Your task to perform on an android device: turn on location history Image 0: 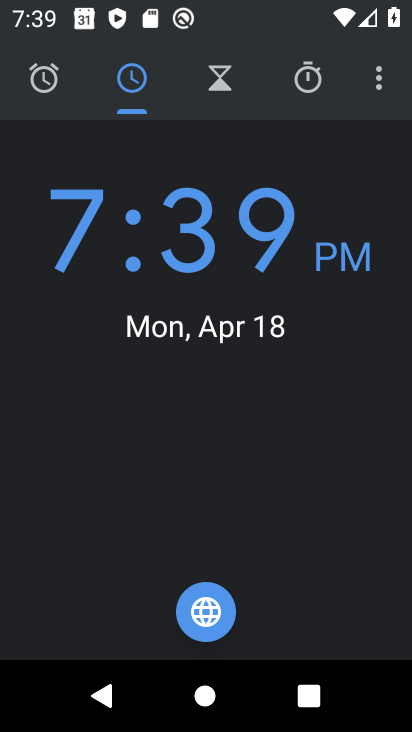
Step 0: press home button
Your task to perform on an android device: turn on location history Image 1: 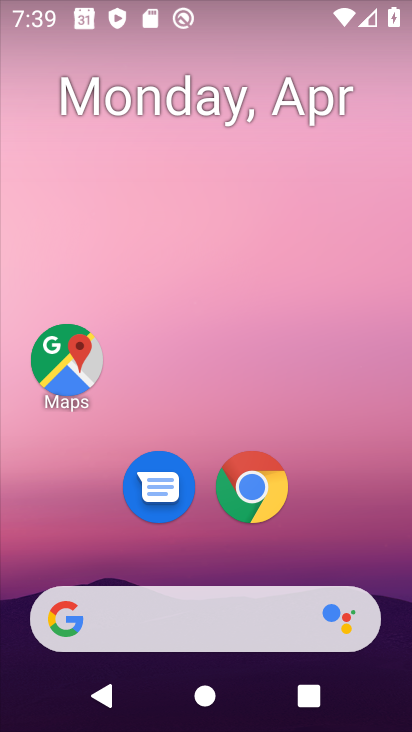
Step 1: drag from (321, 539) to (325, 60)
Your task to perform on an android device: turn on location history Image 2: 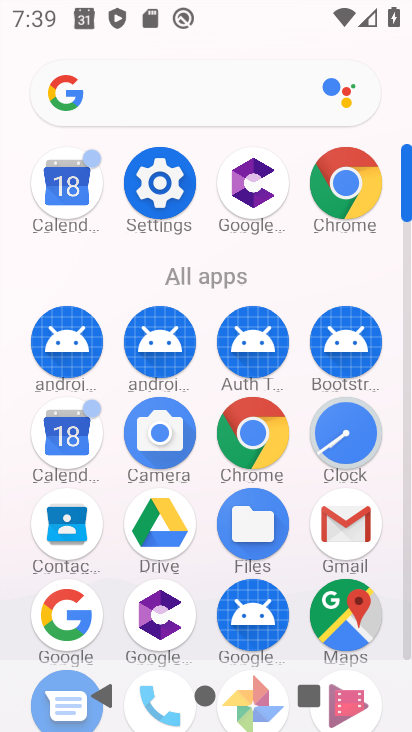
Step 2: click (166, 206)
Your task to perform on an android device: turn on location history Image 3: 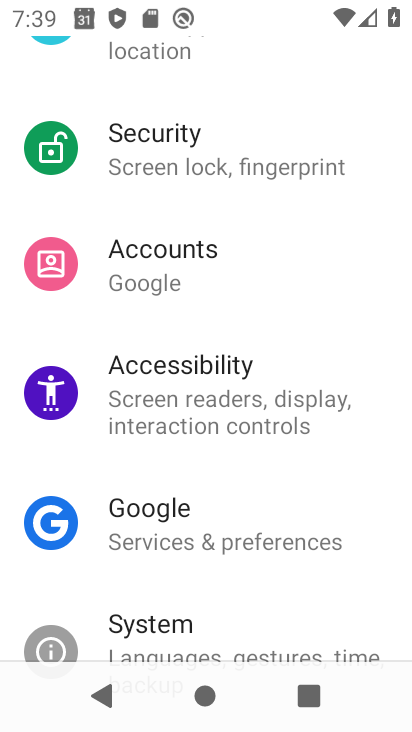
Step 3: drag from (368, 349) to (375, 486)
Your task to perform on an android device: turn on location history Image 4: 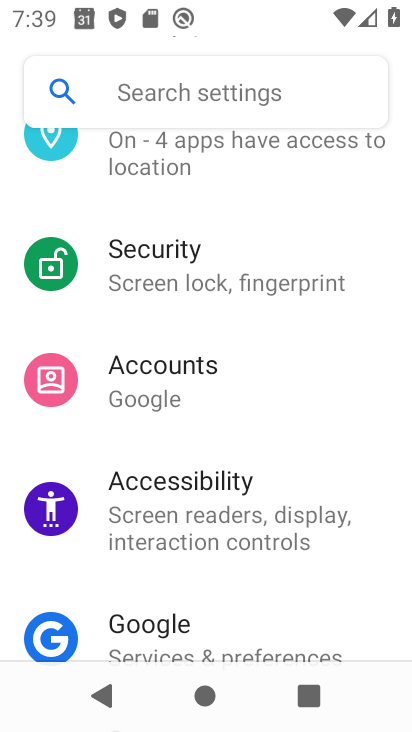
Step 4: drag from (374, 338) to (371, 489)
Your task to perform on an android device: turn on location history Image 5: 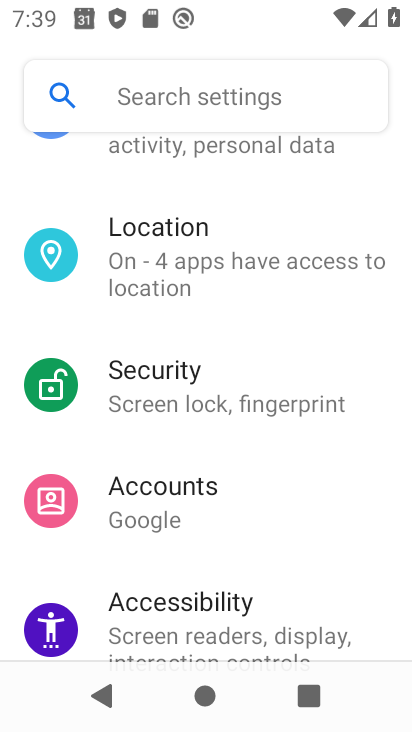
Step 5: drag from (366, 346) to (382, 536)
Your task to perform on an android device: turn on location history Image 6: 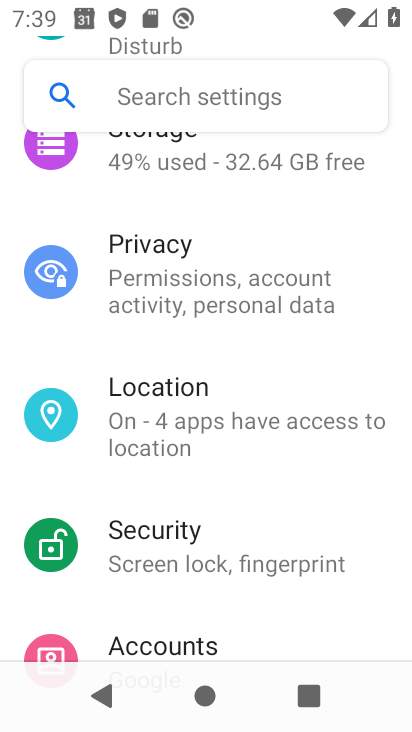
Step 6: click (206, 419)
Your task to perform on an android device: turn on location history Image 7: 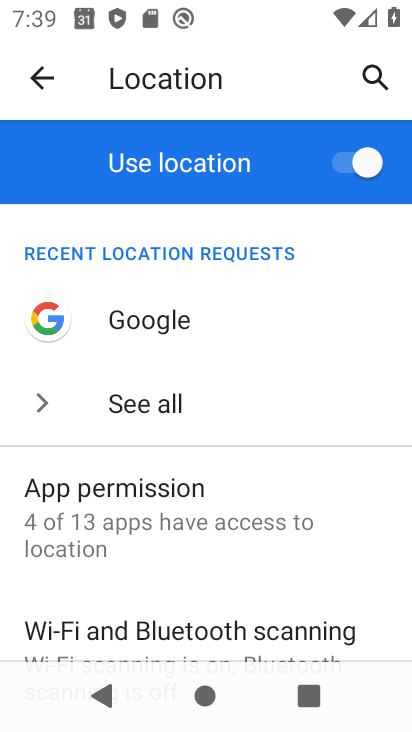
Step 7: drag from (373, 557) to (377, 351)
Your task to perform on an android device: turn on location history Image 8: 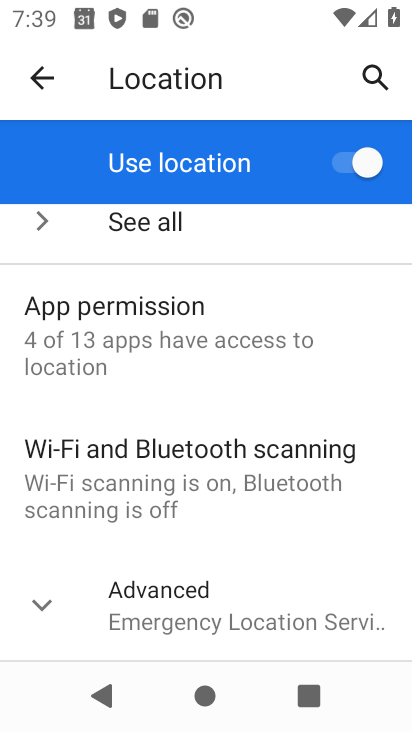
Step 8: drag from (380, 490) to (379, 368)
Your task to perform on an android device: turn on location history Image 9: 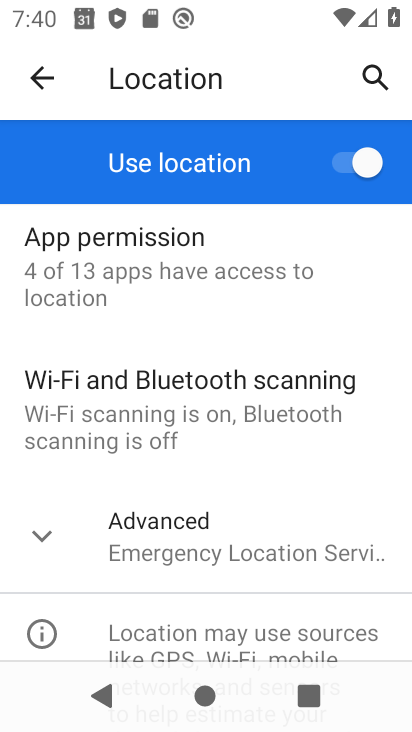
Step 9: click (231, 553)
Your task to perform on an android device: turn on location history Image 10: 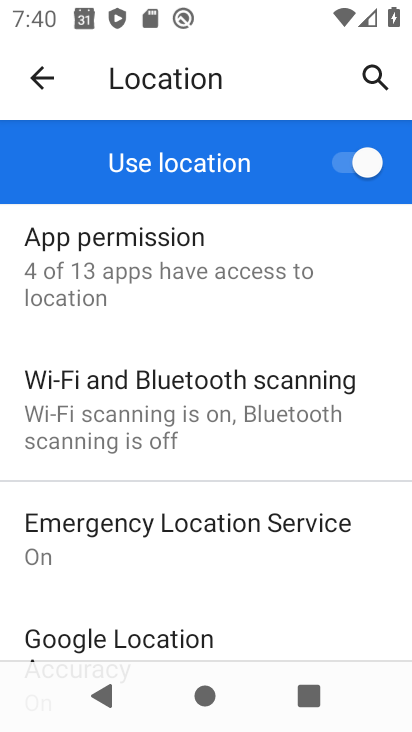
Step 10: task complete